Your task to perform on an android device: Open internet settings Image 0: 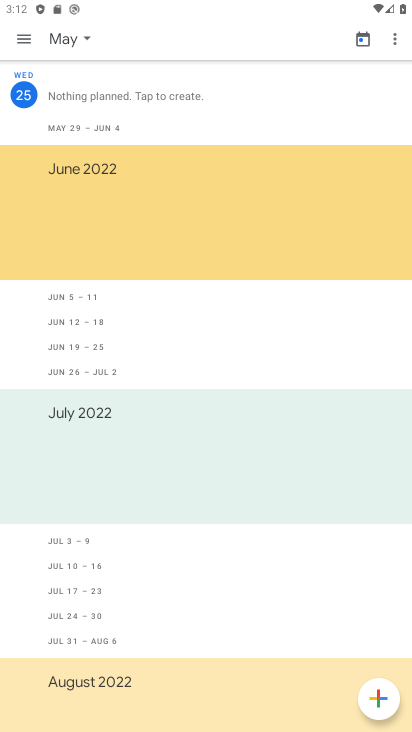
Step 0: press home button
Your task to perform on an android device: Open internet settings Image 1: 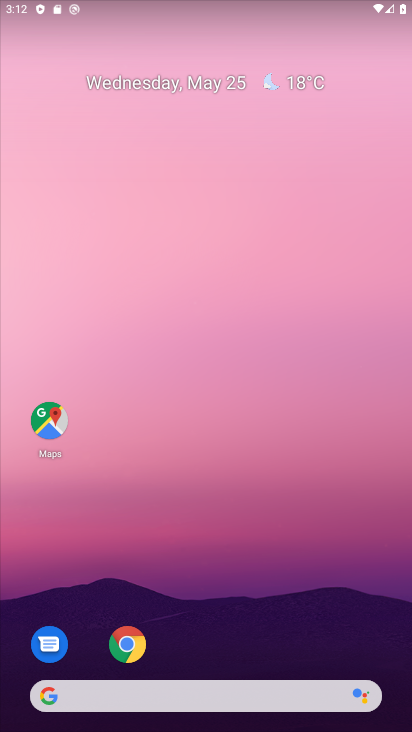
Step 1: drag from (255, 593) to (227, 212)
Your task to perform on an android device: Open internet settings Image 2: 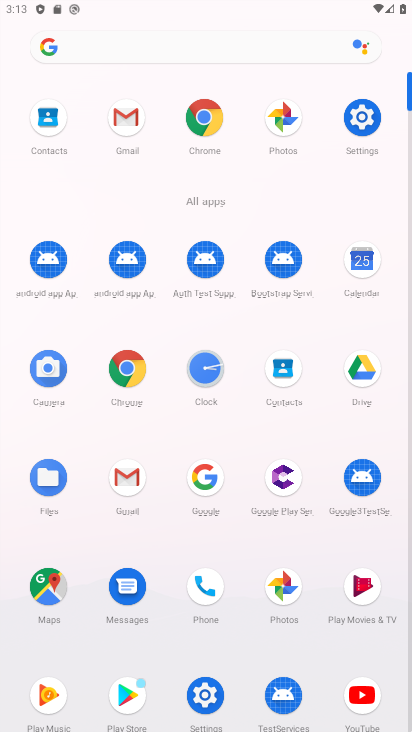
Step 2: click (361, 119)
Your task to perform on an android device: Open internet settings Image 3: 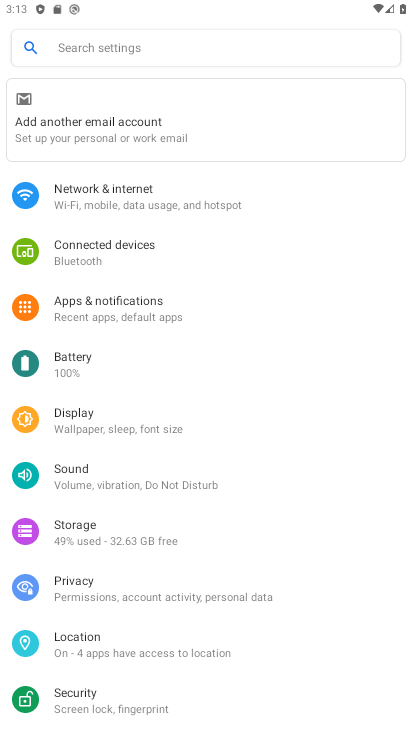
Step 3: click (108, 198)
Your task to perform on an android device: Open internet settings Image 4: 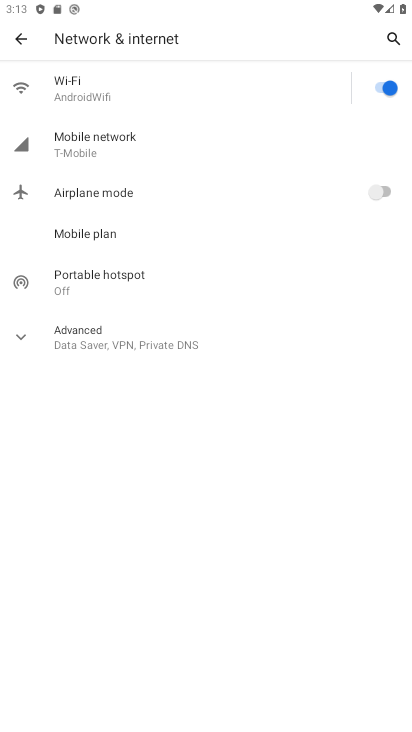
Step 4: click (94, 98)
Your task to perform on an android device: Open internet settings Image 5: 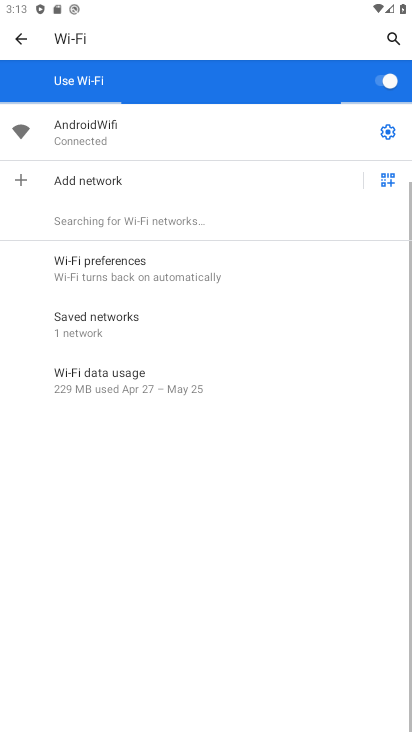
Step 5: task complete